Your task to perform on an android device: What's on my calendar today? Image 0: 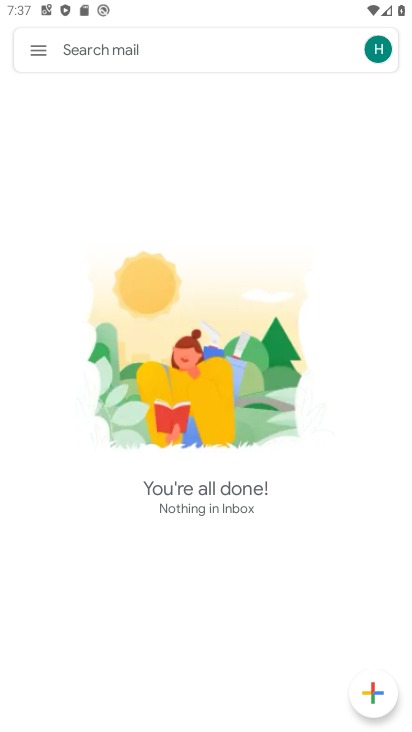
Step 0: press home button
Your task to perform on an android device: What's on my calendar today? Image 1: 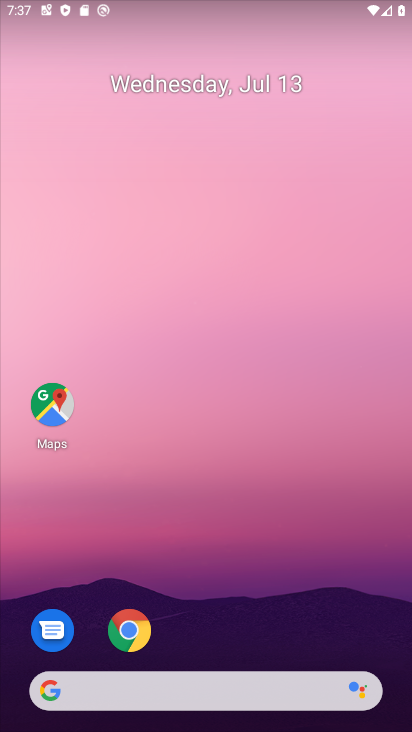
Step 1: drag from (367, 593) to (377, 53)
Your task to perform on an android device: What's on my calendar today? Image 2: 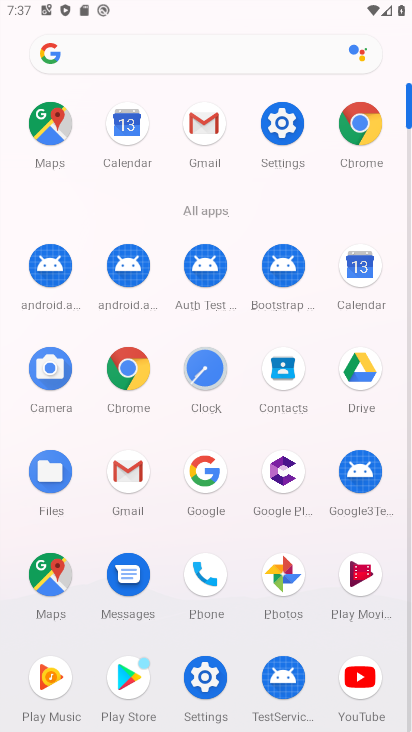
Step 2: click (357, 269)
Your task to perform on an android device: What's on my calendar today? Image 3: 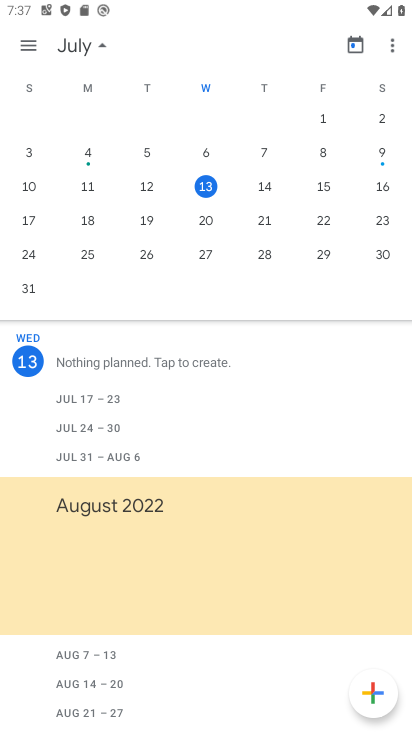
Step 3: task complete